Your task to perform on an android device: change your default location settings in chrome Image 0: 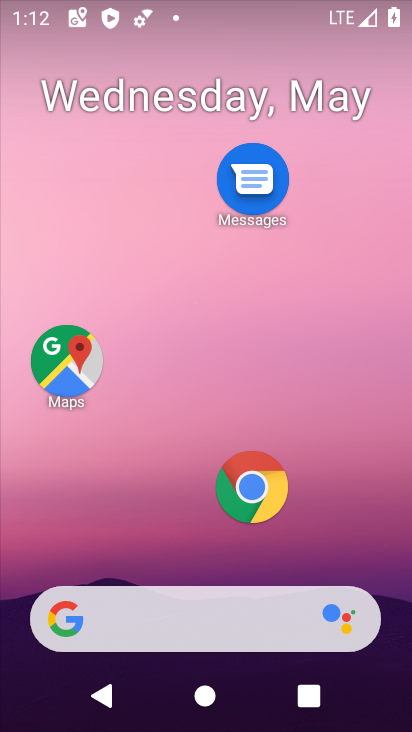
Step 0: click (257, 483)
Your task to perform on an android device: change your default location settings in chrome Image 1: 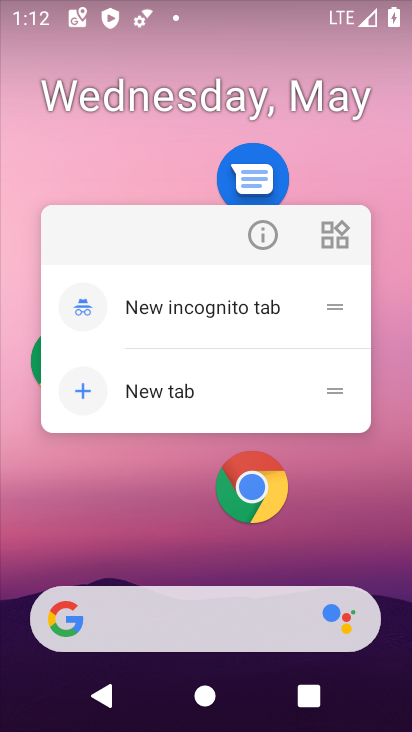
Step 1: click (258, 482)
Your task to perform on an android device: change your default location settings in chrome Image 2: 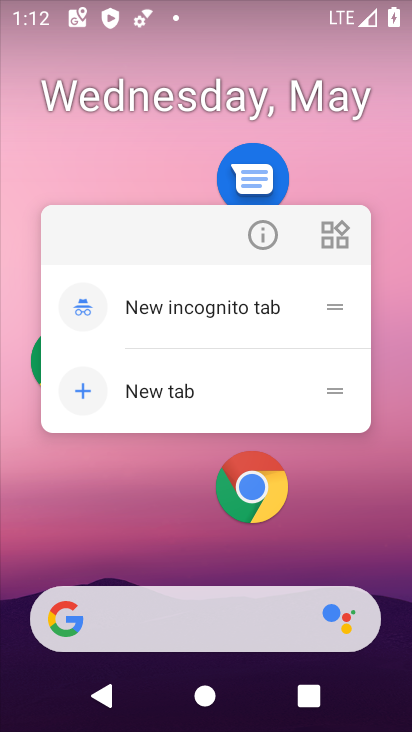
Step 2: click (259, 482)
Your task to perform on an android device: change your default location settings in chrome Image 3: 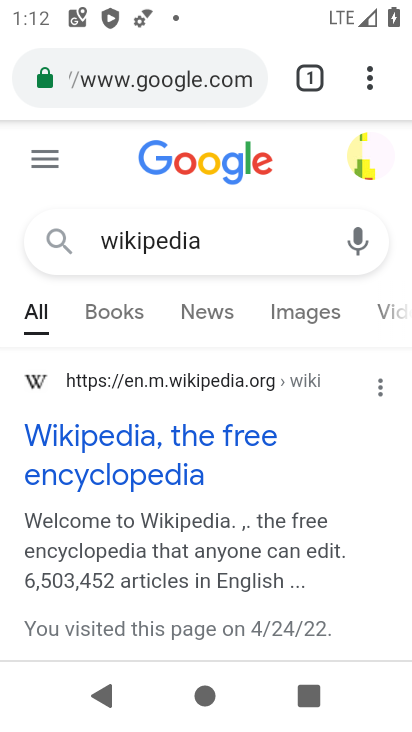
Step 3: click (363, 86)
Your task to perform on an android device: change your default location settings in chrome Image 4: 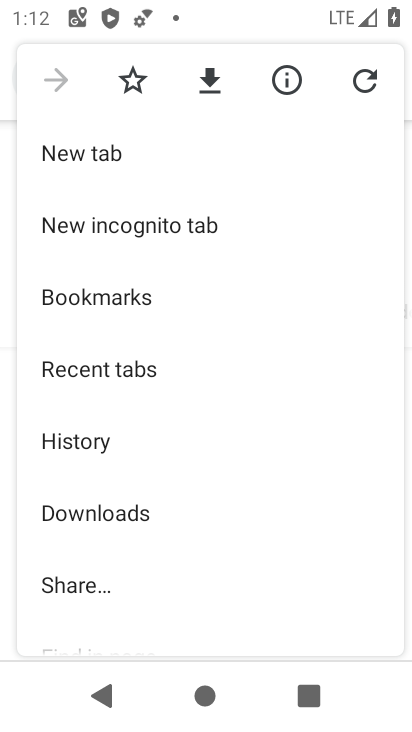
Step 4: drag from (173, 465) to (221, 200)
Your task to perform on an android device: change your default location settings in chrome Image 5: 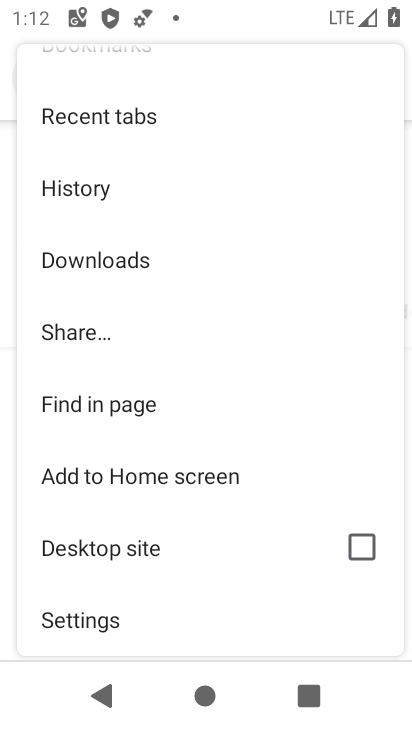
Step 5: drag from (124, 581) to (170, 304)
Your task to perform on an android device: change your default location settings in chrome Image 6: 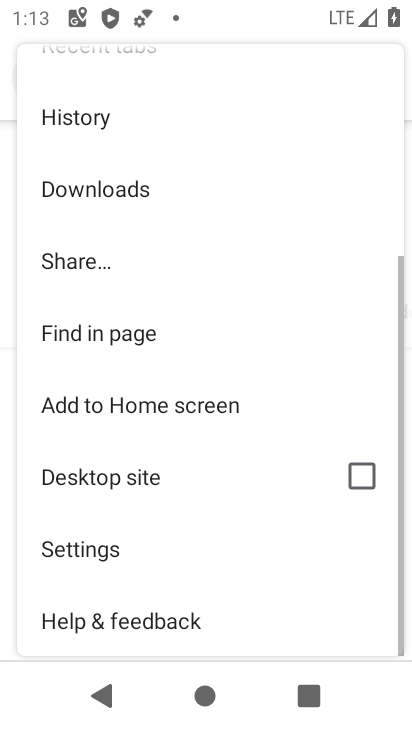
Step 6: click (83, 531)
Your task to perform on an android device: change your default location settings in chrome Image 7: 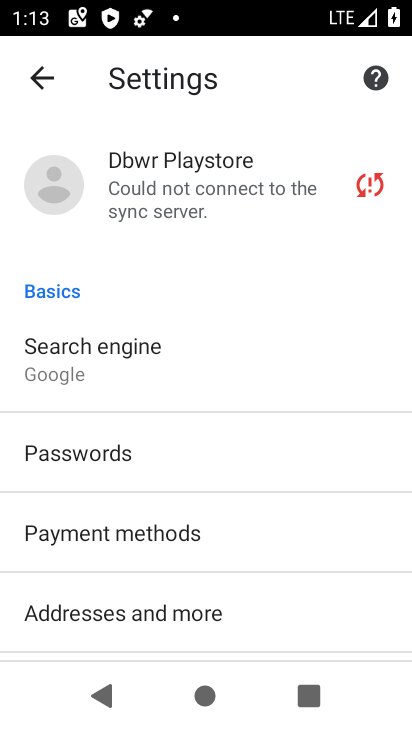
Step 7: drag from (148, 477) to (253, 98)
Your task to perform on an android device: change your default location settings in chrome Image 8: 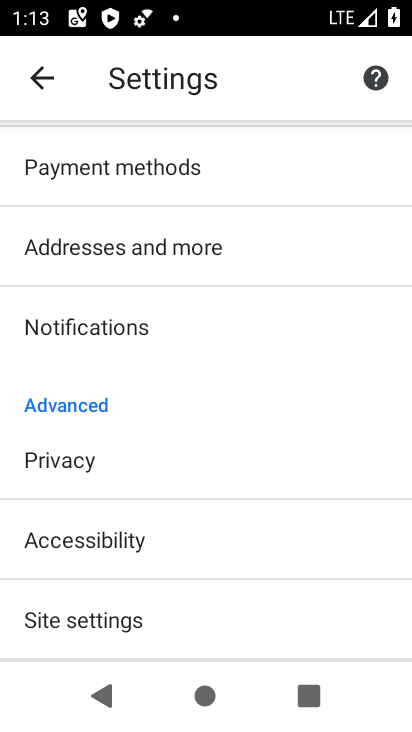
Step 8: click (60, 610)
Your task to perform on an android device: change your default location settings in chrome Image 9: 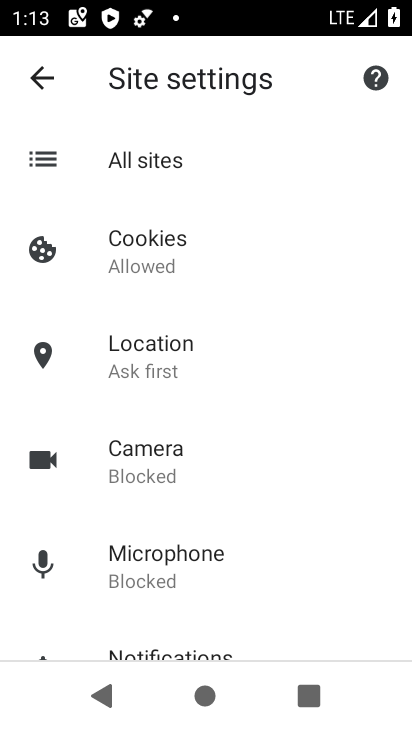
Step 9: click (177, 372)
Your task to perform on an android device: change your default location settings in chrome Image 10: 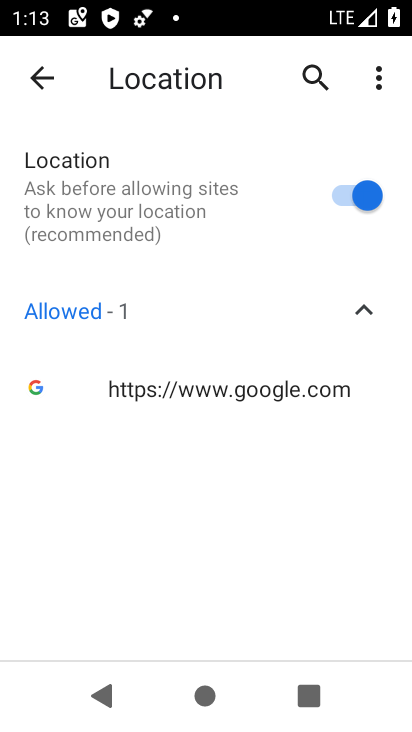
Step 10: click (343, 200)
Your task to perform on an android device: change your default location settings in chrome Image 11: 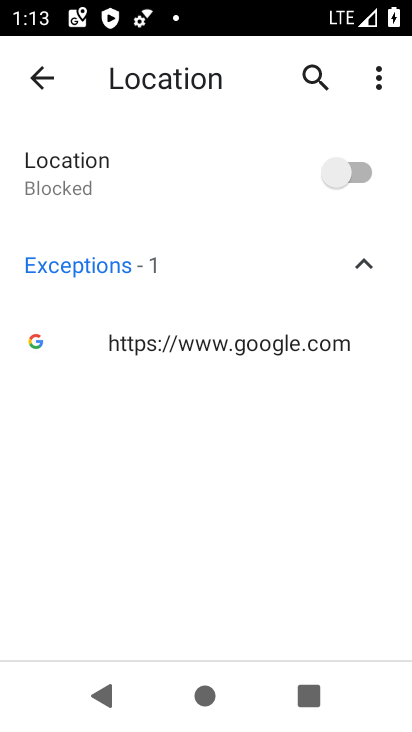
Step 11: task complete